Your task to perform on an android device: Open calendar and show me the fourth week of next month Image 0: 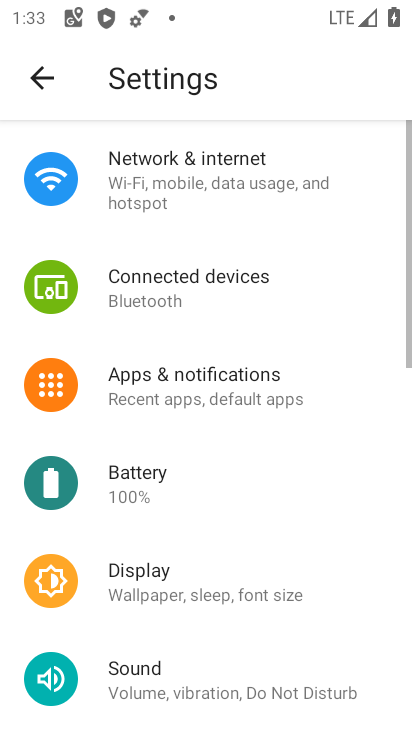
Step 0: press home button
Your task to perform on an android device: Open calendar and show me the fourth week of next month Image 1: 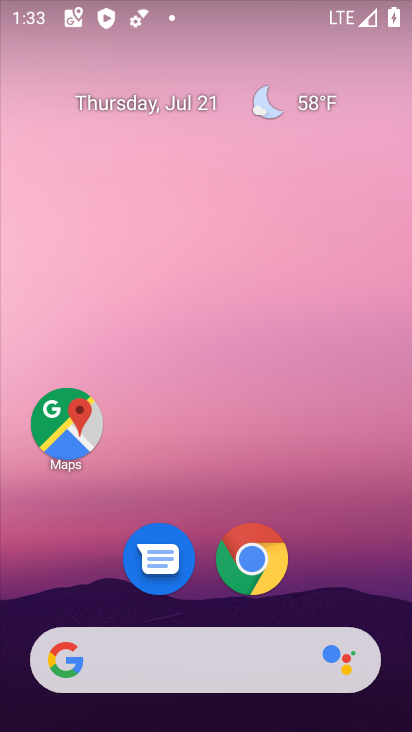
Step 1: drag from (372, 597) to (409, 312)
Your task to perform on an android device: Open calendar and show me the fourth week of next month Image 2: 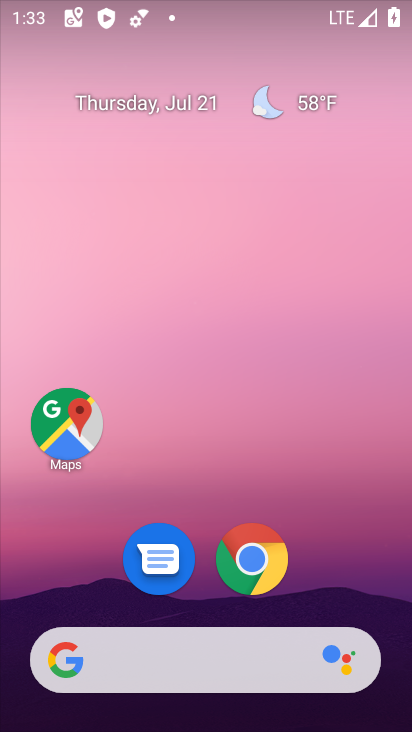
Step 2: drag from (353, 495) to (365, 83)
Your task to perform on an android device: Open calendar and show me the fourth week of next month Image 3: 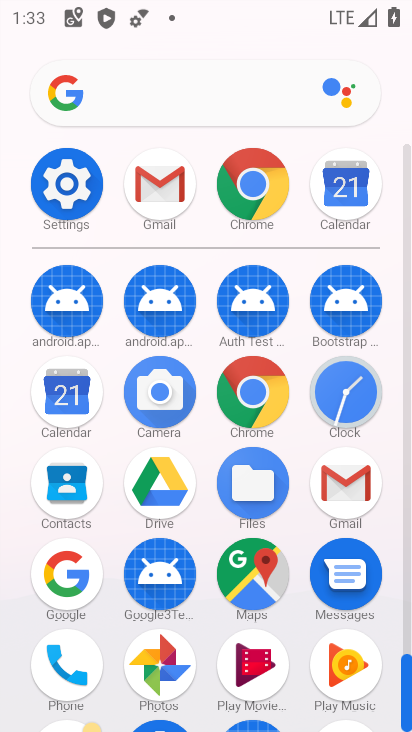
Step 3: click (345, 206)
Your task to perform on an android device: Open calendar and show me the fourth week of next month Image 4: 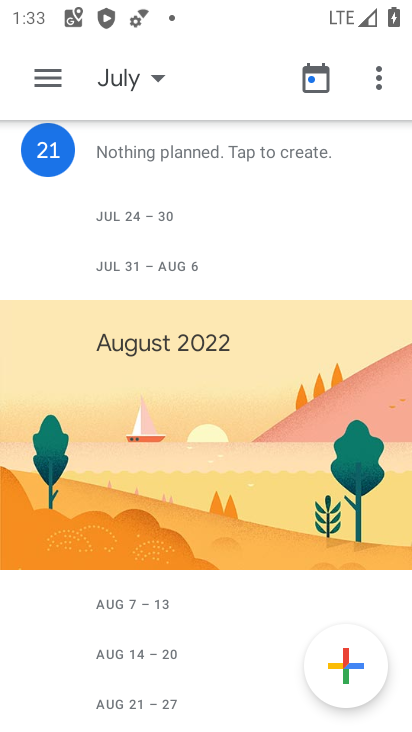
Step 4: click (163, 84)
Your task to perform on an android device: Open calendar and show me the fourth week of next month Image 5: 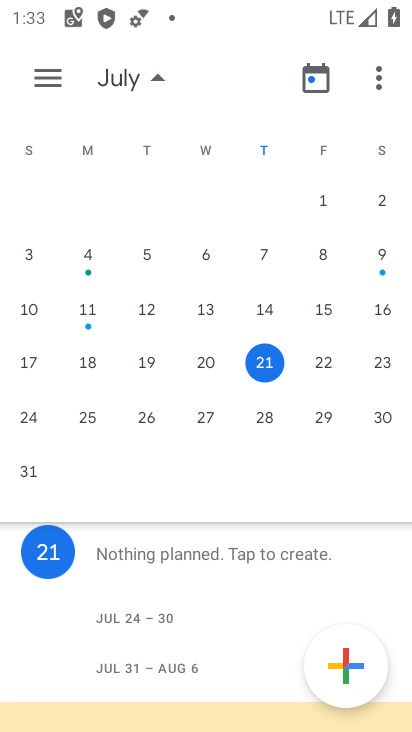
Step 5: drag from (392, 225) to (3, 207)
Your task to perform on an android device: Open calendar and show me the fourth week of next month Image 6: 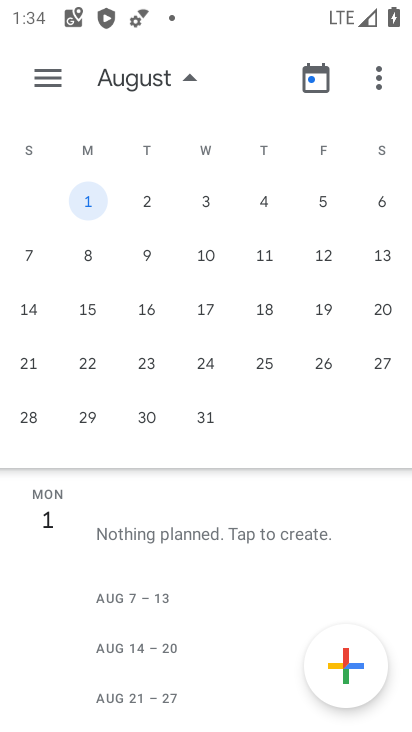
Step 6: click (82, 368)
Your task to perform on an android device: Open calendar and show me the fourth week of next month Image 7: 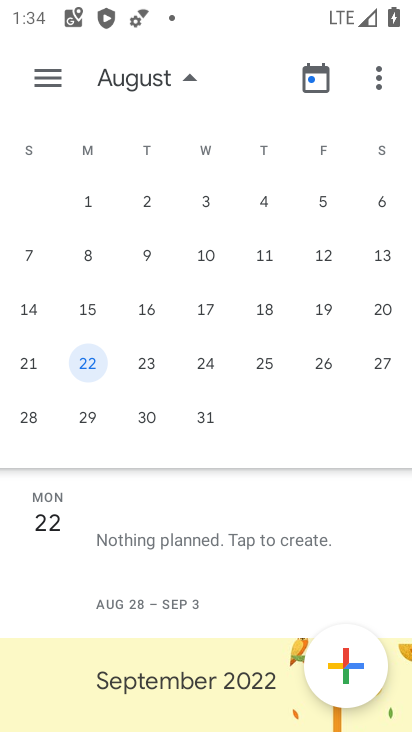
Step 7: task complete